Your task to perform on an android device: Check the news Image 0: 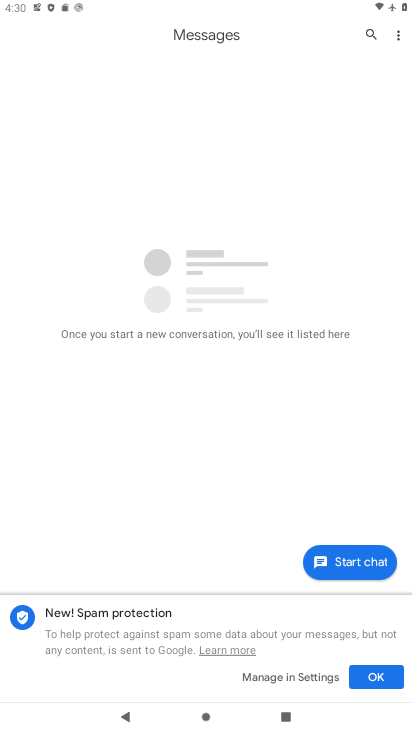
Step 0: press home button
Your task to perform on an android device: Check the news Image 1: 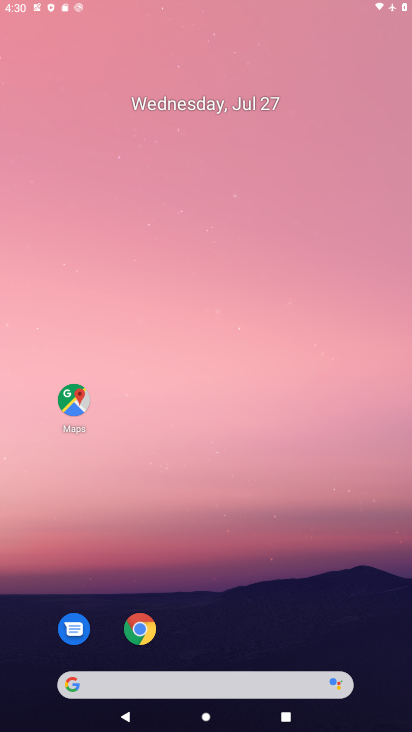
Step 1: press home button
Your task to perform on an android device: Check the news Image 2: 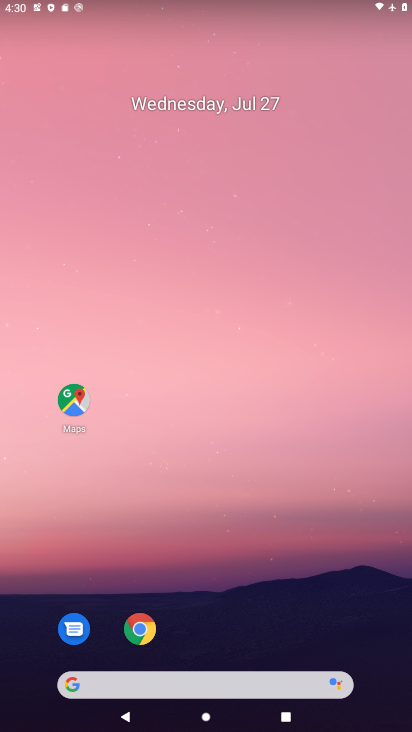
Step 2: click (198, 677)
Your task to perform on an android device: Check the news Image 3: 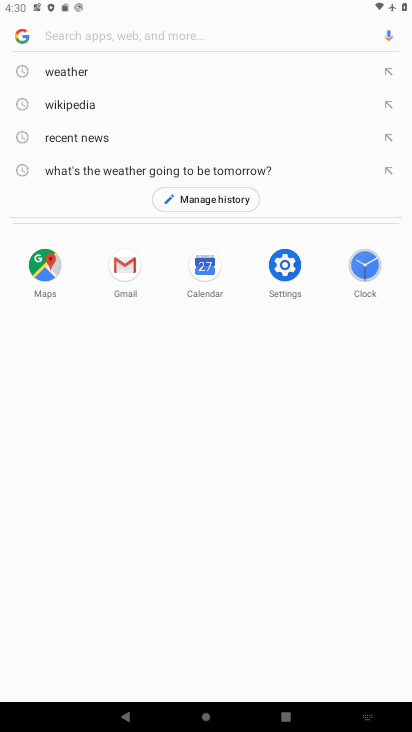
Step 3: click (92, 127)
Your task to perform on an android device: Check the news Image 4: 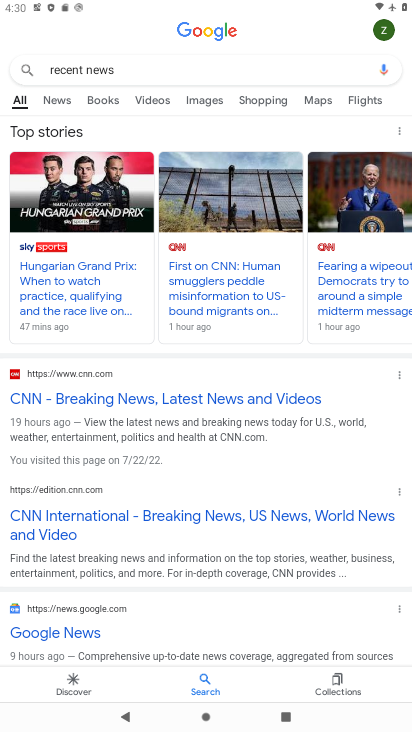
Step 4: click (53, 98)
Your task to perform on an android device: Check the news Image 5: 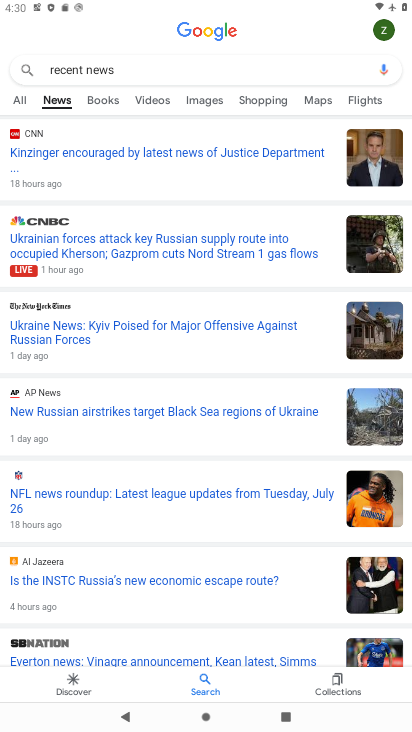
Step 5: task complete